Your task to perform on an android device: visit the assistant section in the google photos Image 0: 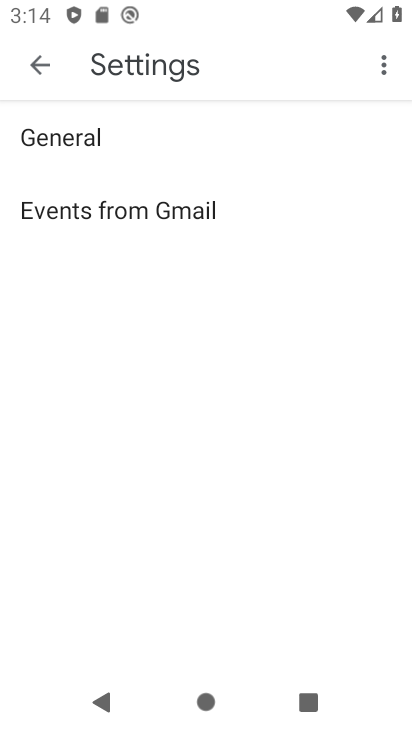
Step 0: press home button
Your task to perform on an android device: visit the assistant section in the google photos Image 1: 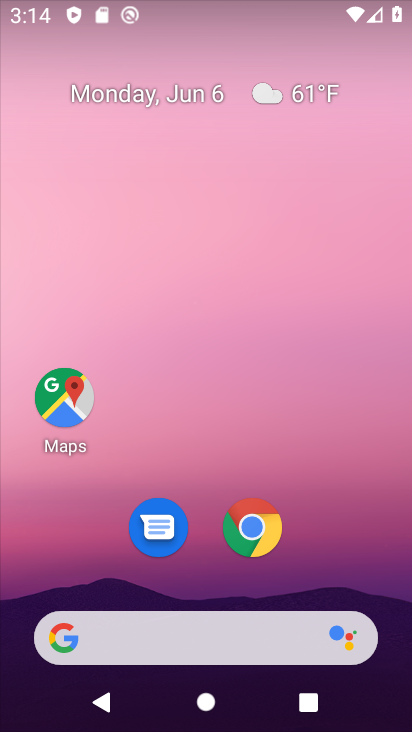
Step 1: drag from (319, 554) to (231, 14)
Your task to perform on an android device: visit the assistant section in the google photos Image 2: 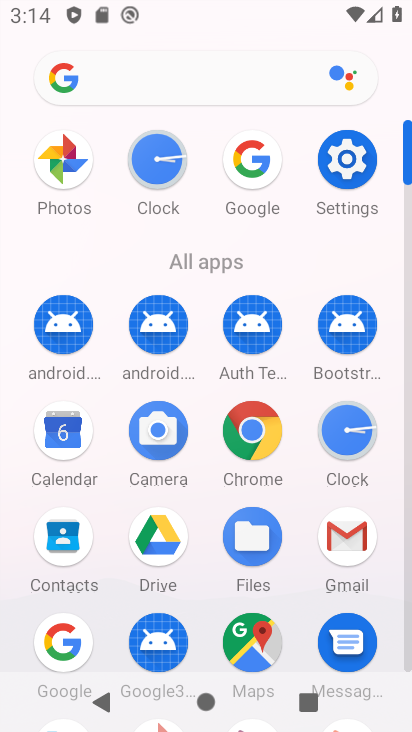
Step 2: click (62, 159)
Your task to perform on an android device: visit the assistant section in the google photos Image 3: 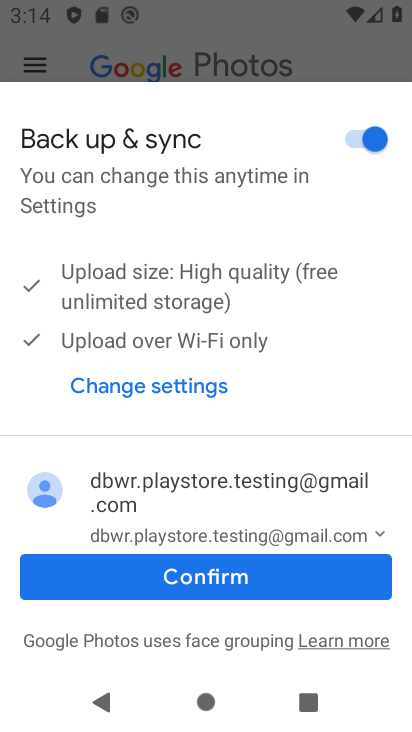
Step 3: click (215, 569)
Your task to perform on an android device: visit the assistant section in the google photos Image 4: 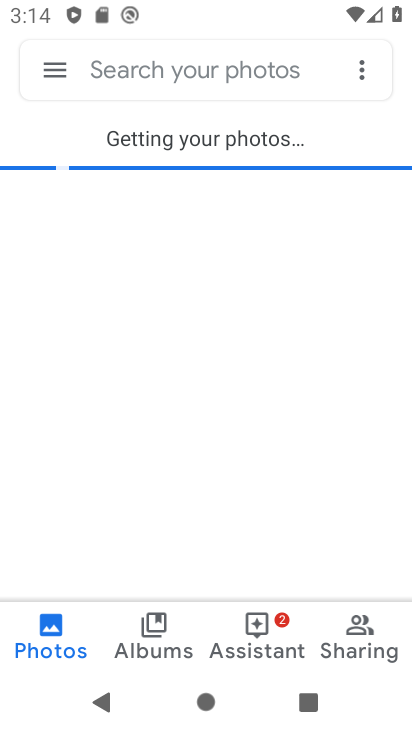
Step 4: click (261, 630)
Your task to perform on an android device: visit the assistant section in the google photos Image 5: 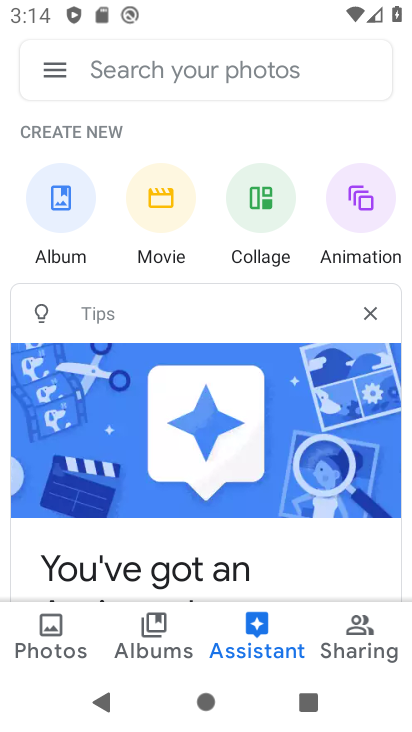
Step 5: task complete